Your task to perform on an android device: What is the news today? Image 0: 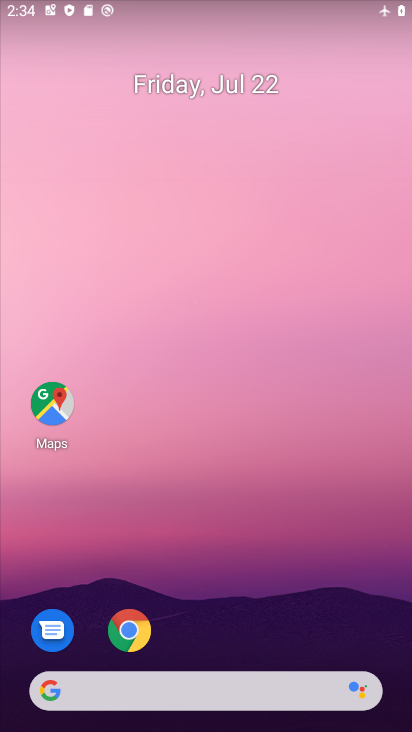
Step 0: click (187, 690)
Your task to perform on an android device: What is the news today? Image 1: 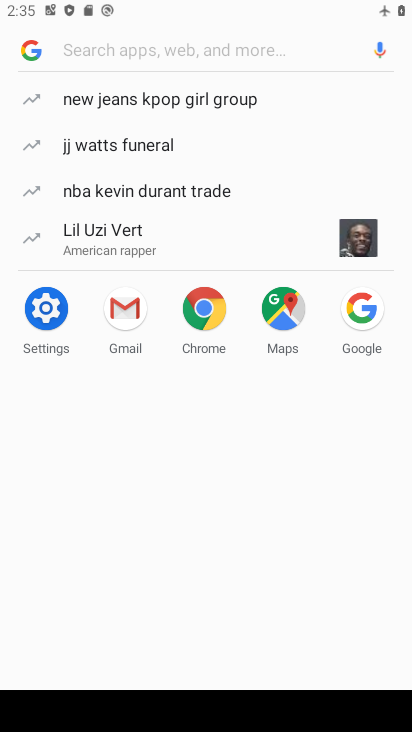
Step 1: type "new"
Your task to perform on an android device: What is the news today? Image 2: 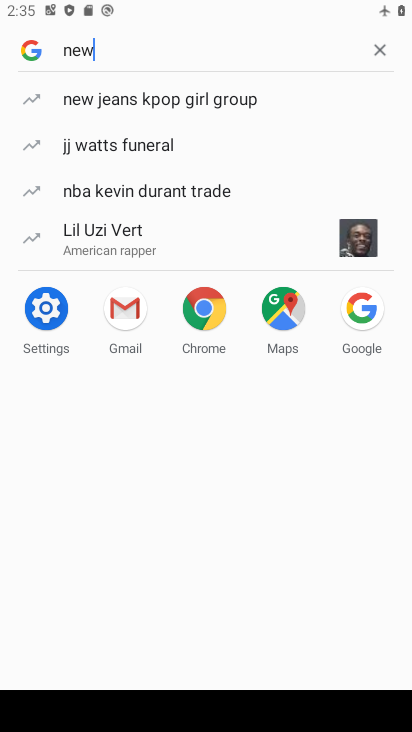
Step 2: type ""
Your task to perform on an android device: What is the news today? Image 3: 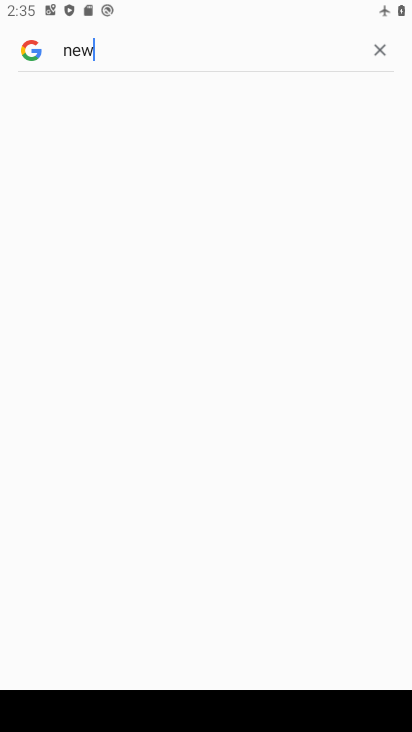
Step 3: type "s"
Your task to perform on an android device: What is the news today? Image 4: 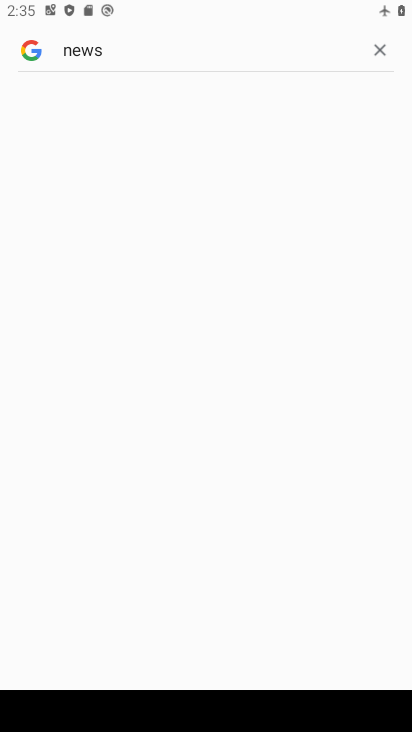
Step 4: task complete